Your task to perform on an android device: see creations saved in the google photos Image 0: 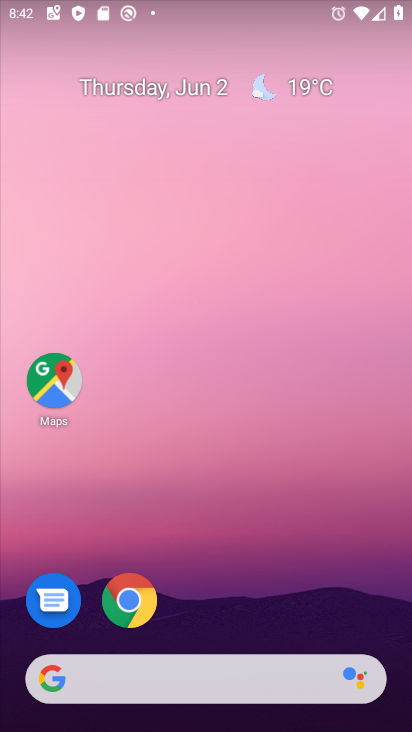
Step 0: drag from (371, 620) to (368, 270)
Your task to perform on an android device: see creations saved in the google photos Image 1: 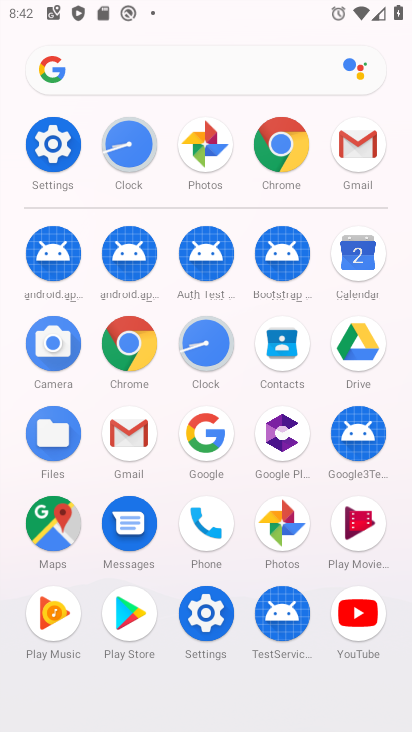
Step 1: click (296, 521)
Your task to perform on an android device: see creations saved in the google photos Image 2: 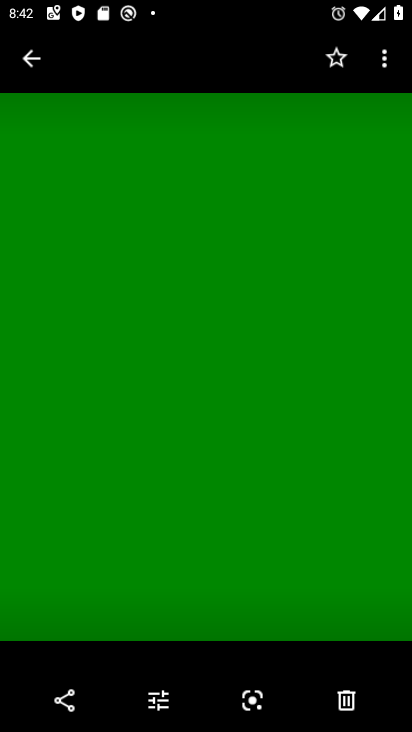
Step 2: press back button
Your task to perform on an android device: see creations saved in the google photos Image 3: 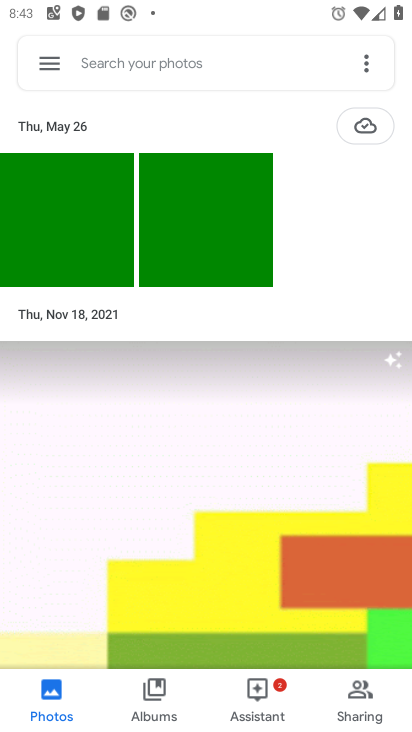
Step 3: click (206, 75)
Your task to perform on an android device: see creations saved in the google photos Image 4: 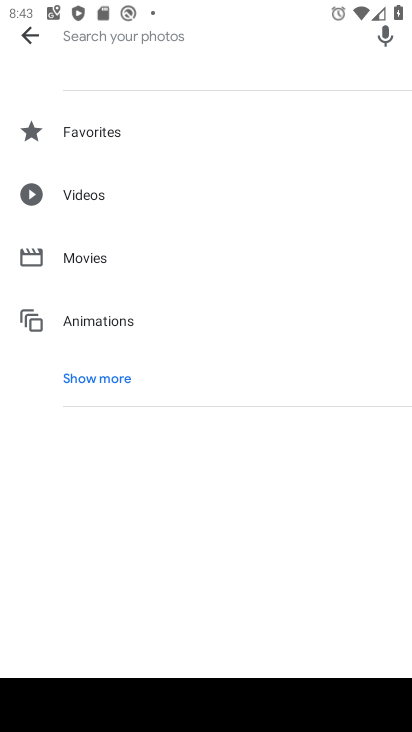
Step 4: click (143, 388)
Your task to perform on an android device: see creations saved in the google photos Image 5: 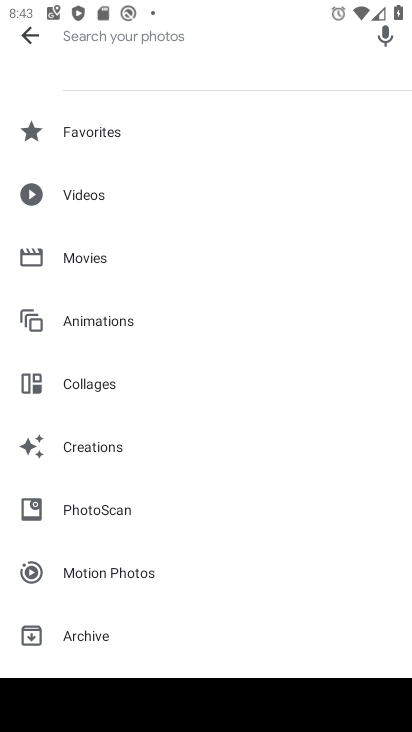
Step 5: drag from (273, 449) to (281, 336)
Your task to perform on an android device: see creations saved in the google photos Image 6: 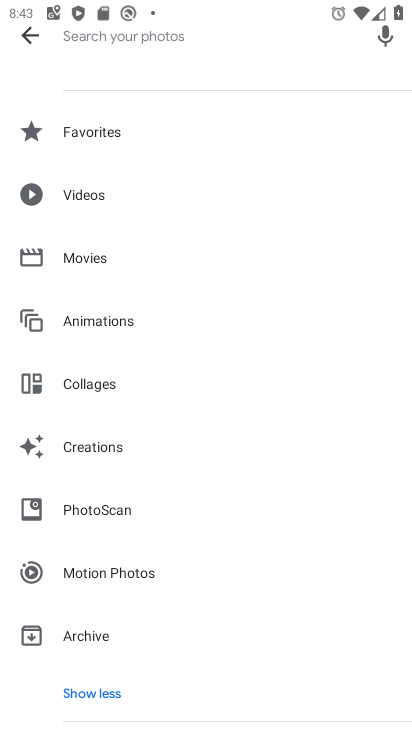
Step 6: click (132, 448)
Your task to perform on an android device: see creations saved in the google photos Image 7: 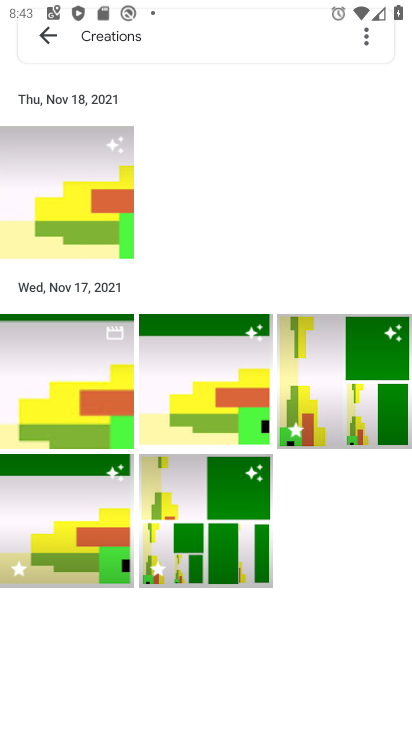
Step 7: task complete